Your task to perform on an android device: Go to Yahoo.com Image 0: 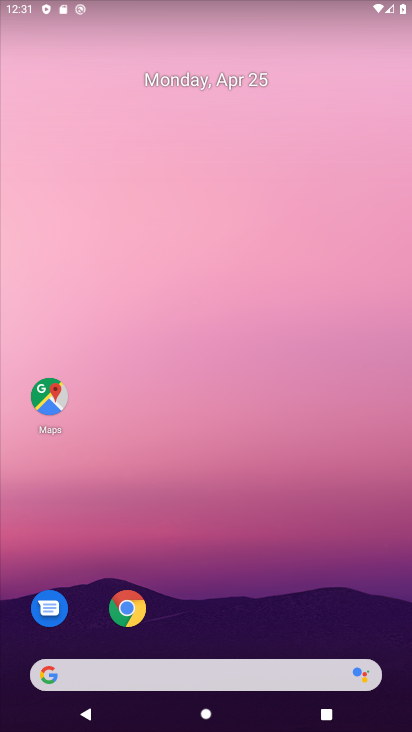
Step 0: drag from (299, 594) to (259, 133)
Your task to perform on an android device: Go to Yahoo.com Image 1: 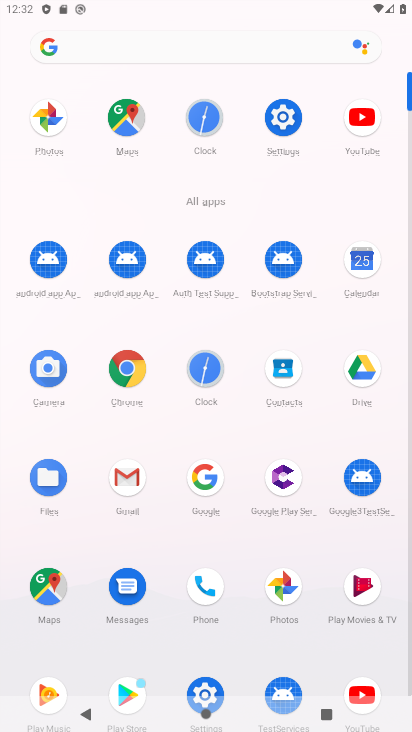
Step 1: click (115, 392)
Your task to perform on an android device: Go to Yahoo.com Image 2: 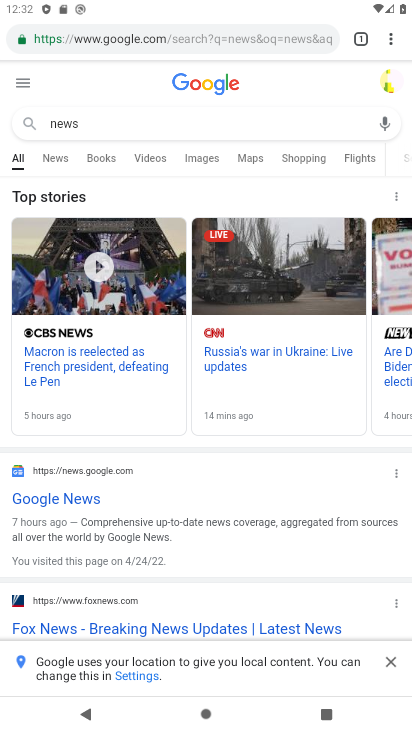
Step 2: click (356, 38)
Your task to perform on an android device: Go to Yahoo.com Image 3: 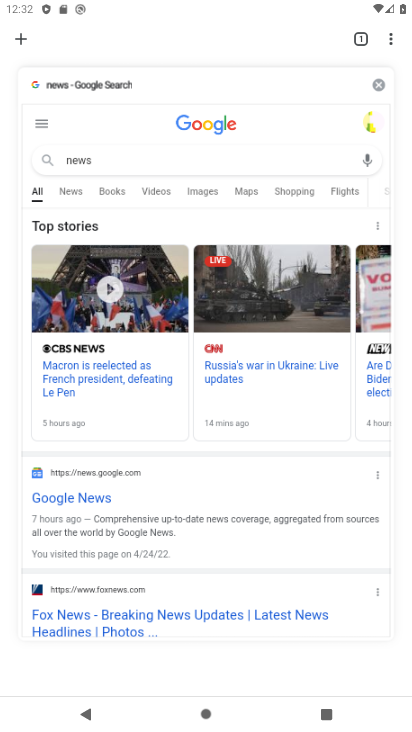
Step 3: click (29, 46)
Your task to perform on an android device: Go to Yahoo.com Image 4: 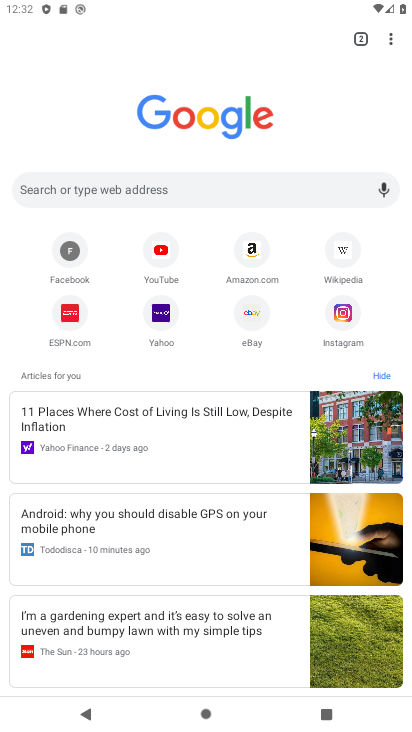
Step 4: click (162, 324)
Your task to perform on an android device: Go to Yahoo.com Image 5: 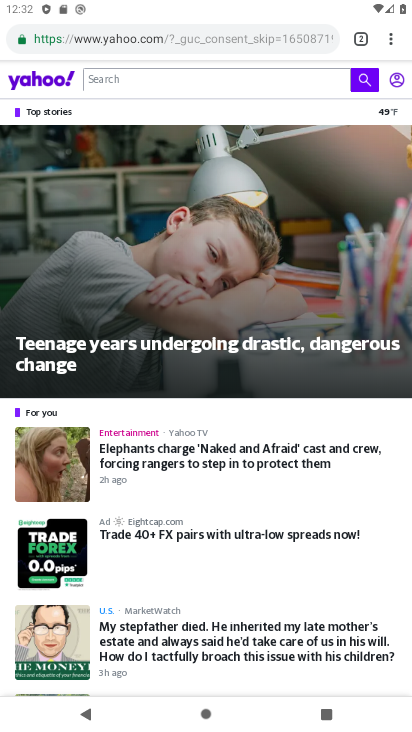
Step 5: task complete